Your task to perform on an android device: Go to CNN.com Image 0: 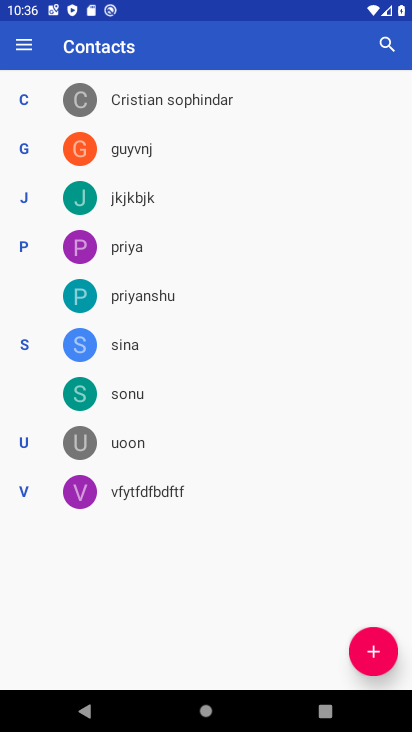
Step 0: press home button
Your task to perform on an android device: Go to CNN.com Image 1: 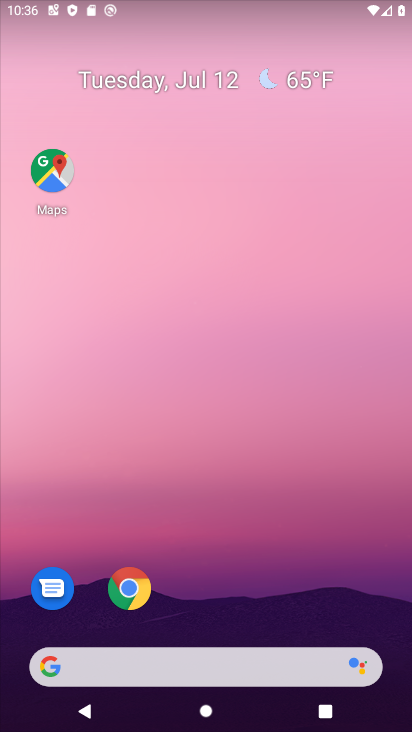
Step 1: click (159, 673)
Your task to perform on an android device: Go to CNN.com Image 2: 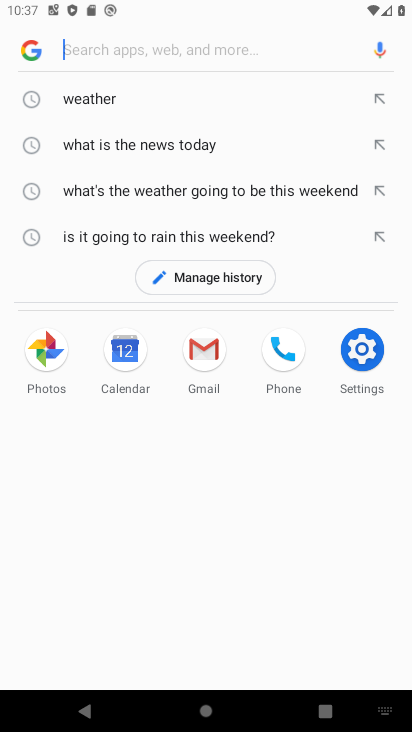
Step 2: type "CNN.com"
Your task to perform on an android device: Go to CNN.com Image 3: 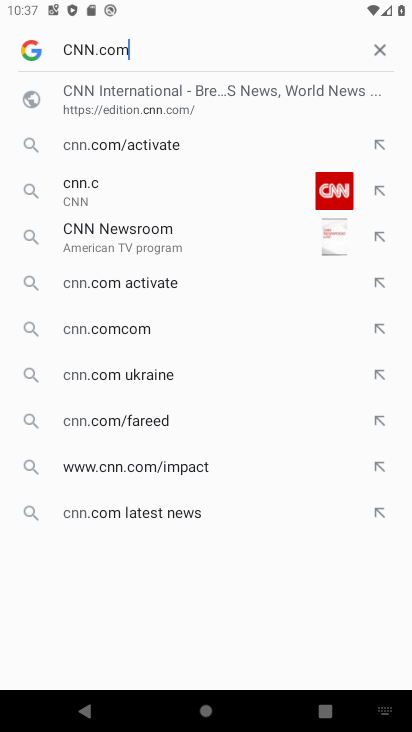
Step 3: type ""
Your task to perform on an android device: Go to CNN.com Image 4: 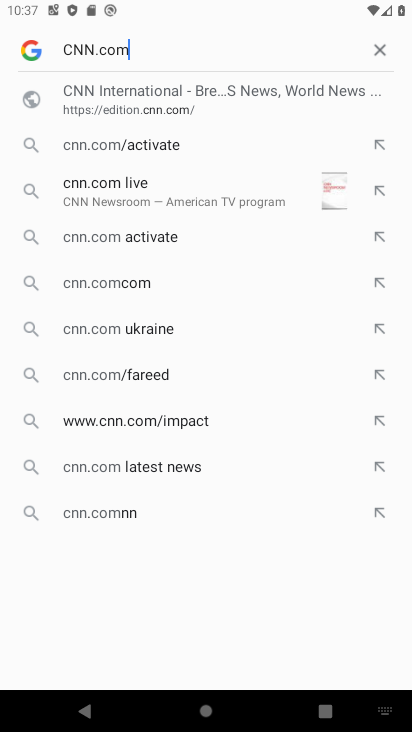
Step 4: click (152, 96)
Your task to perform on an android device: Go to CNN.com Image 5: 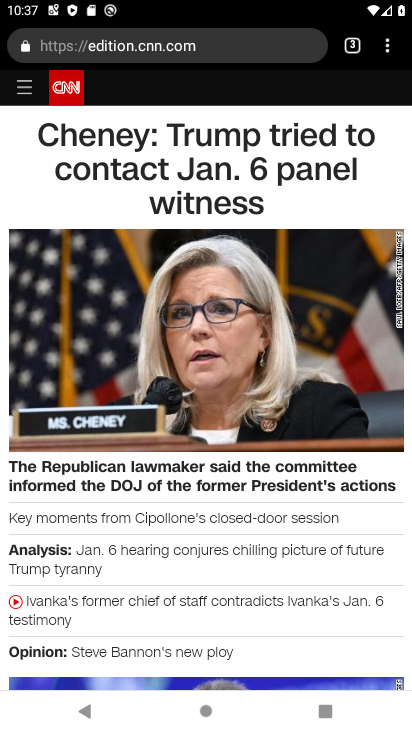
Step 5: task complete